Your task to perform on an android device: open app "Facebook Messenger" (install if not already installed) and go to login screen Image 0: 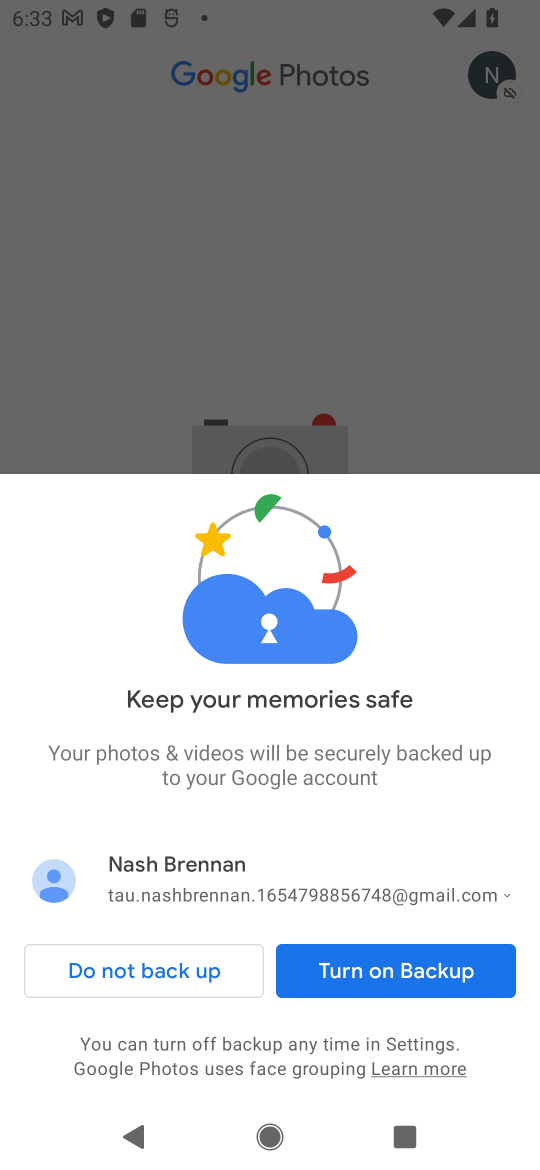
Step 0: press home button
Your task to perform on an android device: open app "Facebook Messenger" (install if not already installed) and go to login screen Image 1: 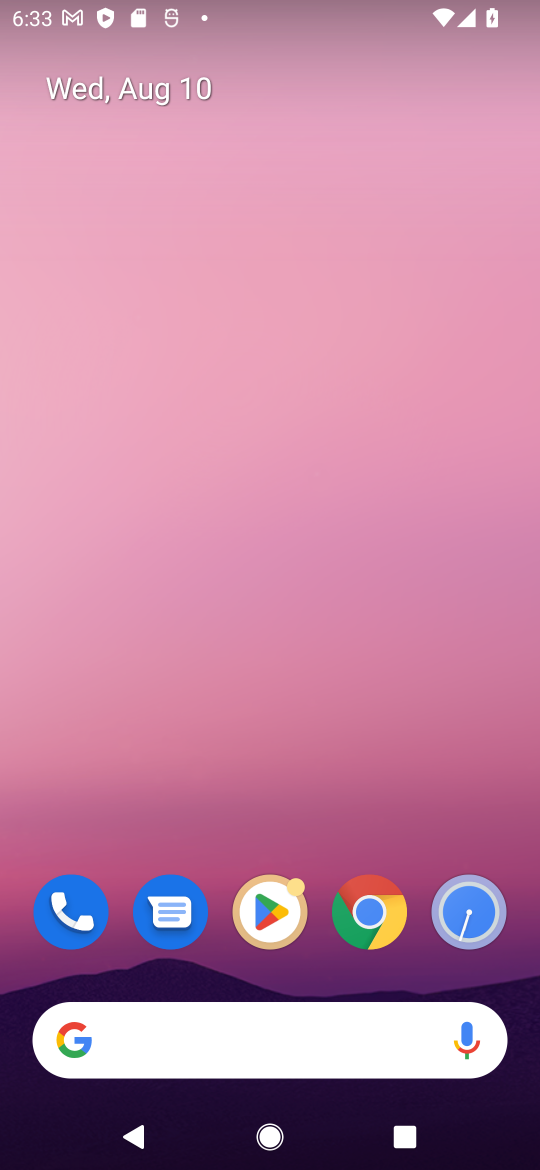
Step 1: drag from (431, 955) to (288, 80)
Your task to perform on an android device: open app "Facebook Messenger" (install if not already installed) and go to login screen Image 2: 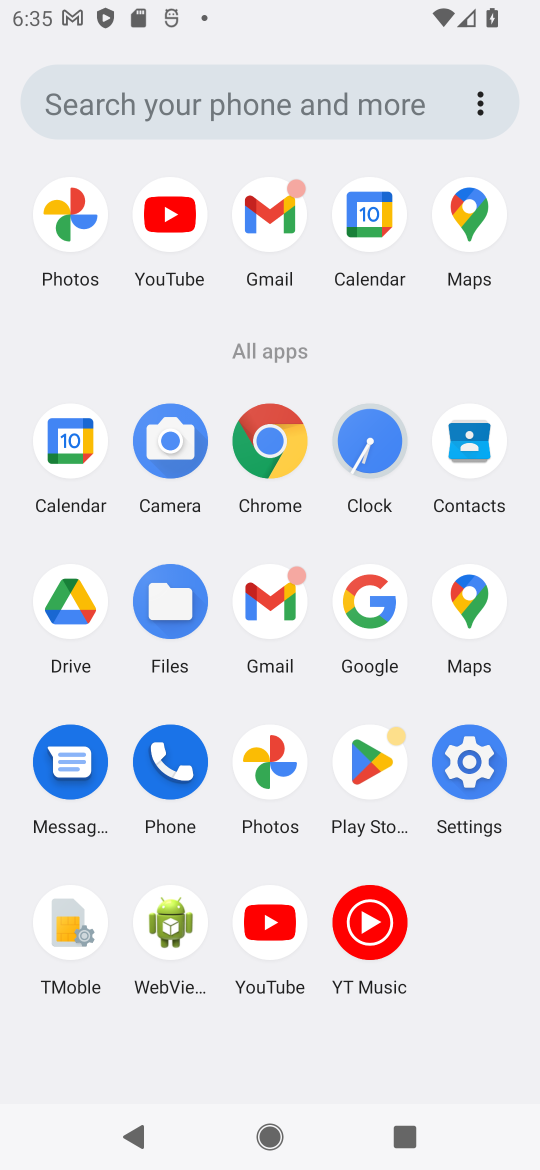
Step 2: click (367, 768)
Your task to perform on an android device: open app "Facebook Messenger" (install if not already installed) and go to login screen Image 3: 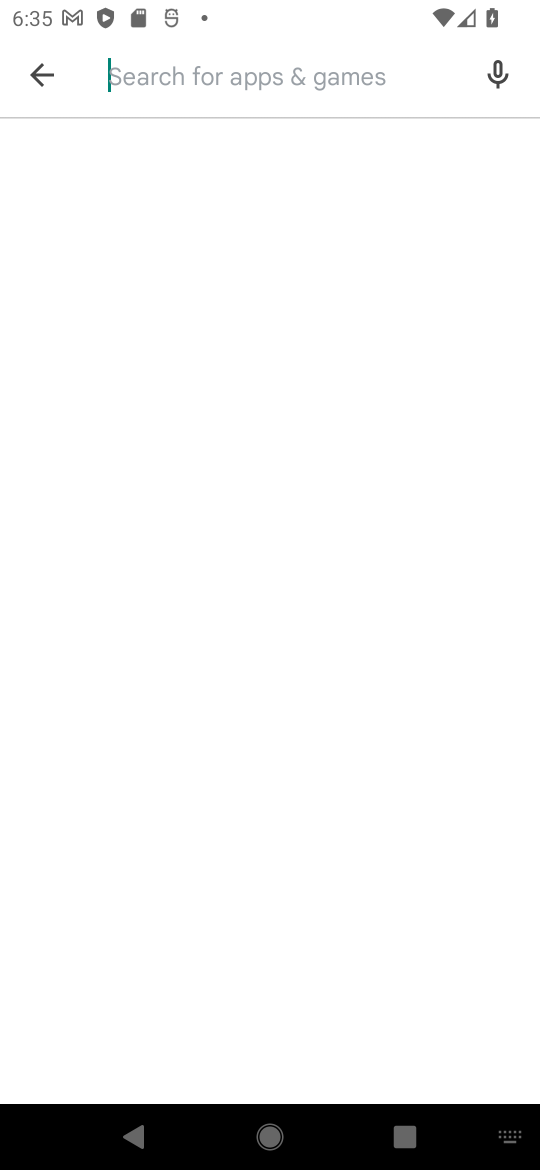
Step 3: type "Facebook Messenger"
Your task to perform on an android device: open app "Facebook Messenger" (install if not already installed) and go to login screen Image 4: 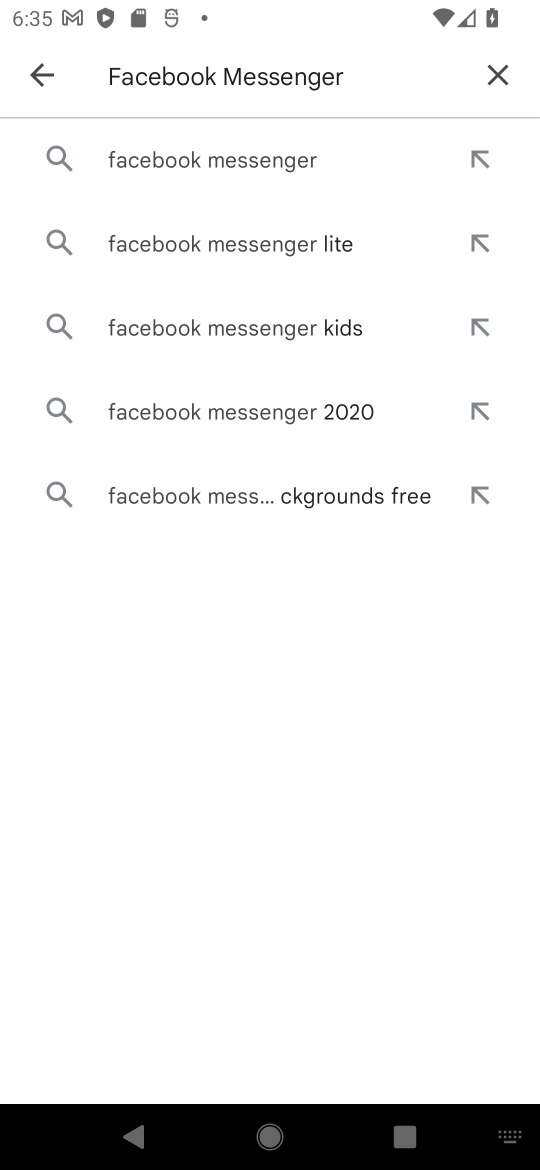
Step 4: click (218, 182)
Your task to perform on an android device: open app "Facebook Messenger" (install if not already installed) and go to login screen Image 5: 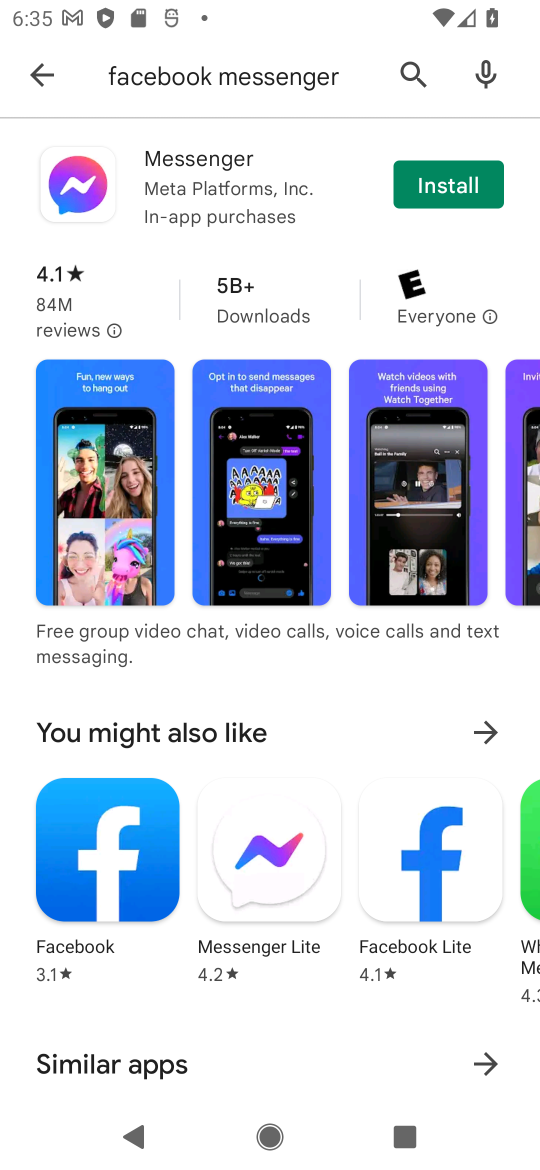
Step 5: task complete